Your task to perform on an android device: add a contact Image 0: 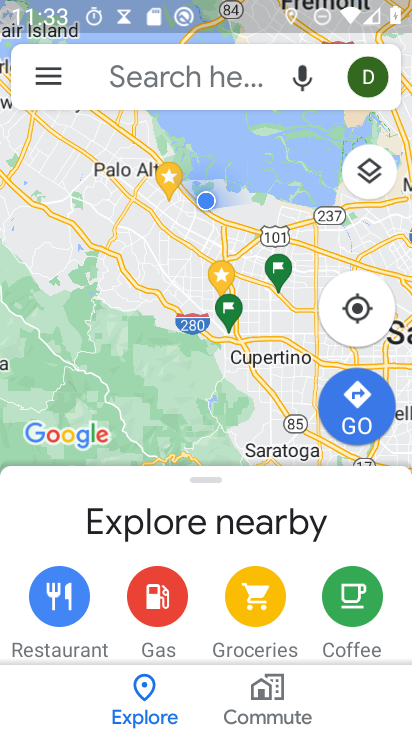
Step 0: press home button
Your task to perform on an android device: add a contact Image 1: 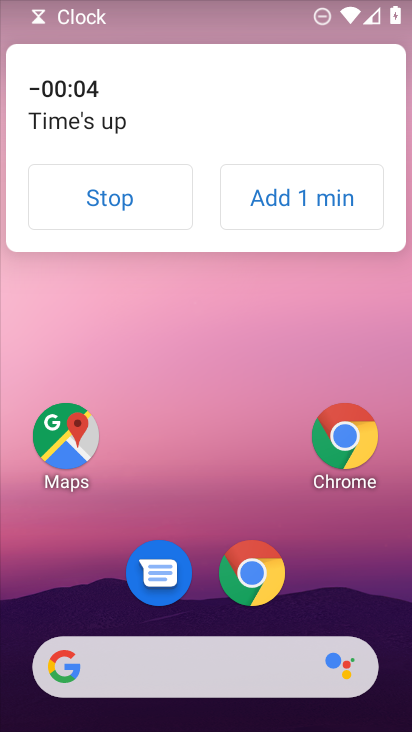
Step 1: click (89, 210)
Your task to perform on an android device: add a contact Image 2: 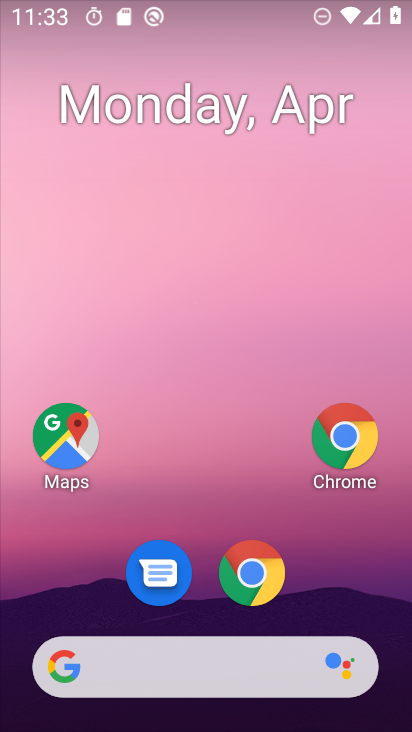
Step 2: drag from (349, 570) to (307, 45)
Your task to perform on an android device: add a contact Image 3: 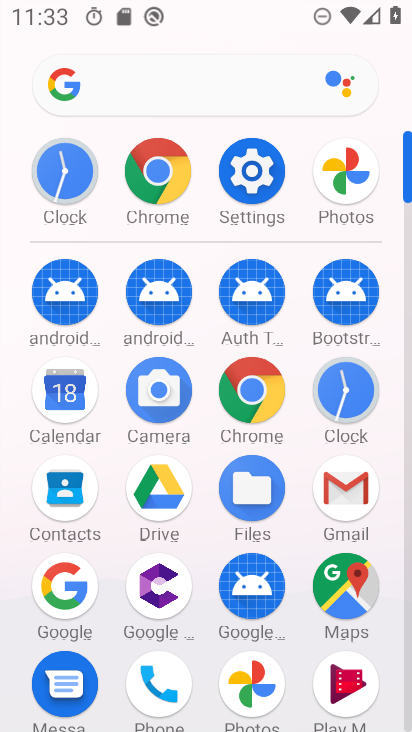
Step 3: click (56, 393)
Your task to perform on an android device: add a contact Image 4: 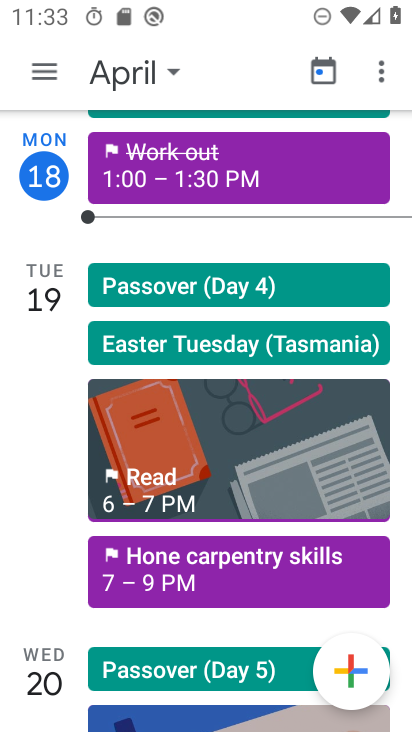
Step 4: click (348, 665)
Your task to perform on an android device: add a contact Image 5: 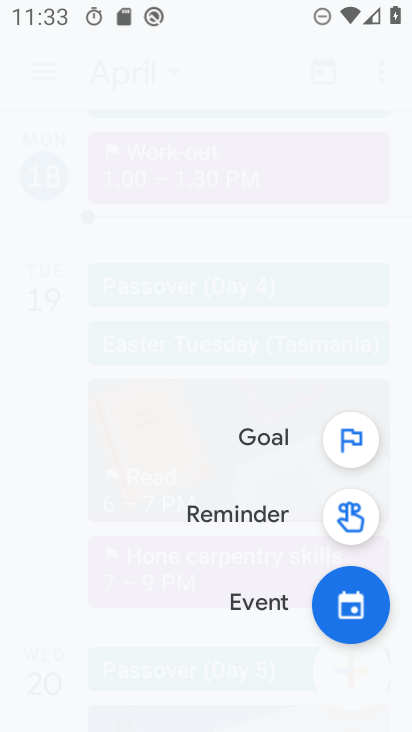
Step 5: click (52, 222)
Your task to perform on an android device: add a contact Image 6: 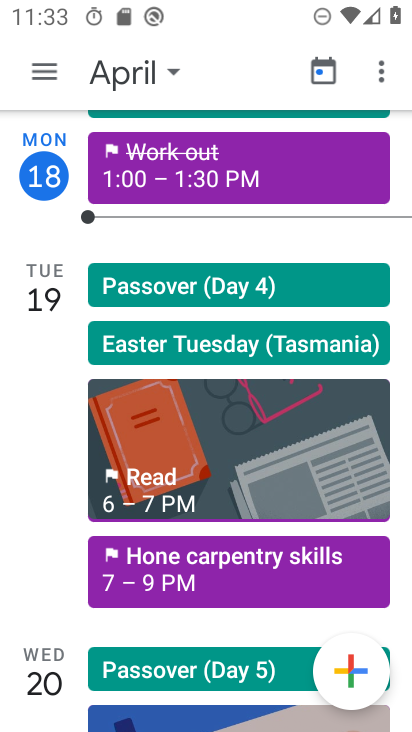
Step 6: press home button
Your task to perform on an android device: add a contact Image 7: 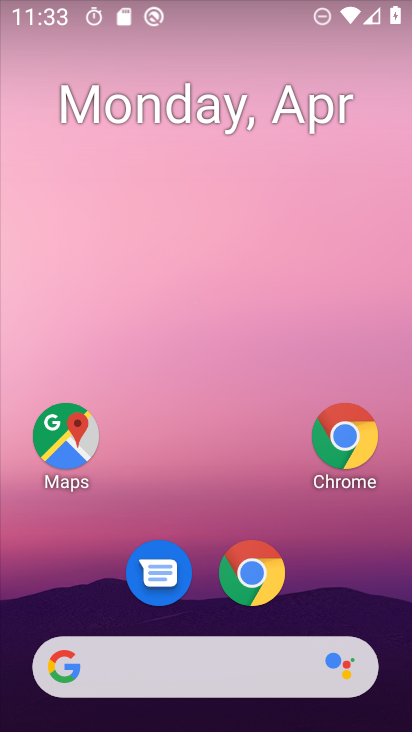
Step 7: drag from (405, 404) to (387, 12)
Your task to perform on an android device: add a contact Image 8: 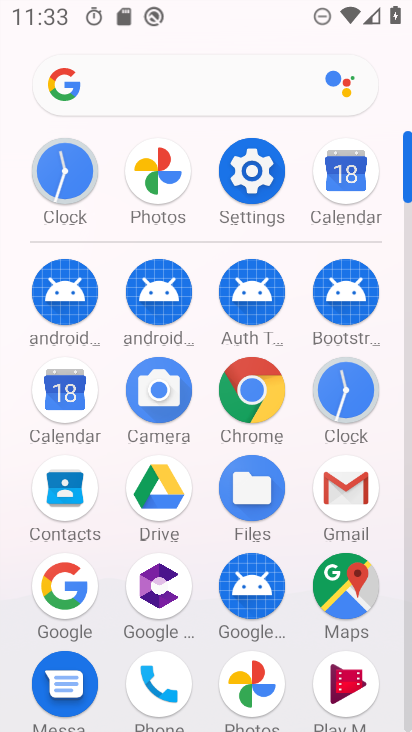
Step 8: click (51, 495)
Your task to perform on an android device: add a contact Image 9: 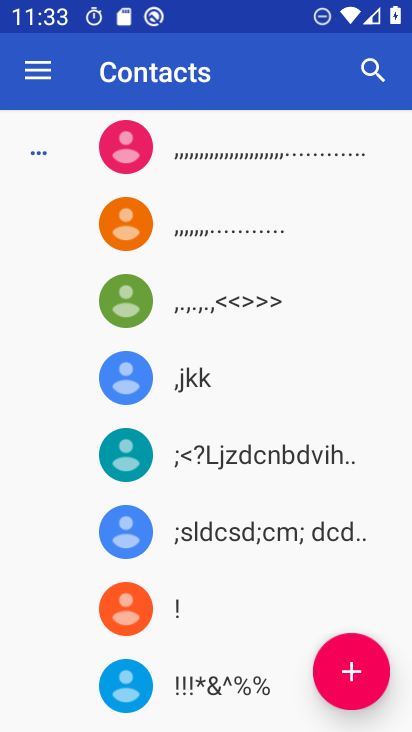
Step 9: click (345, 673)
Your task to perform on an android device: add a contact Image 10: 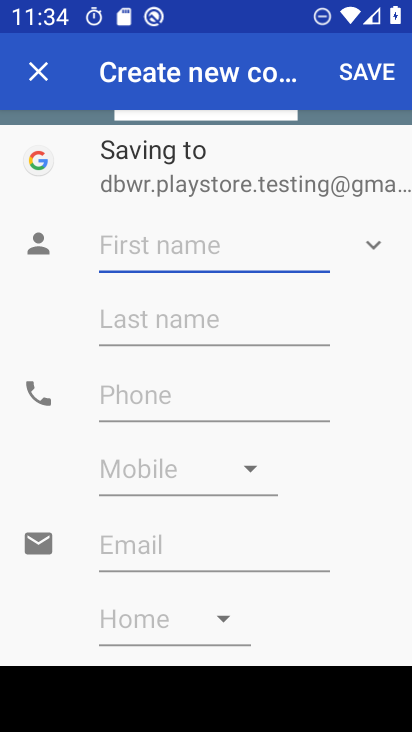
Step 10: type "renu"
Your task to perform on an android device: add a contact Image 11: 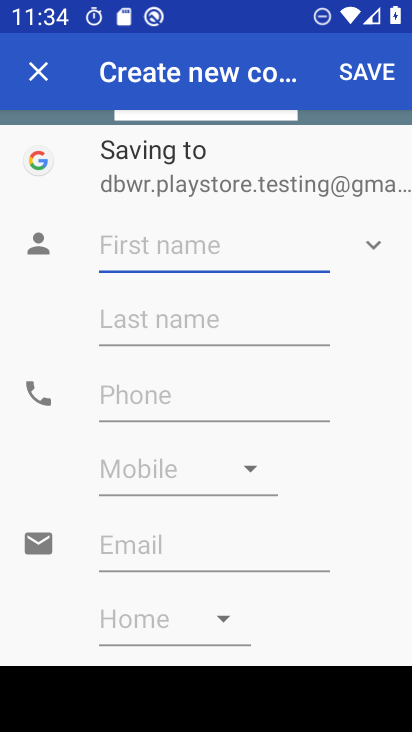
Step 11: click (136, 377)
Your task to perform on an android device: add a contact Image 12: 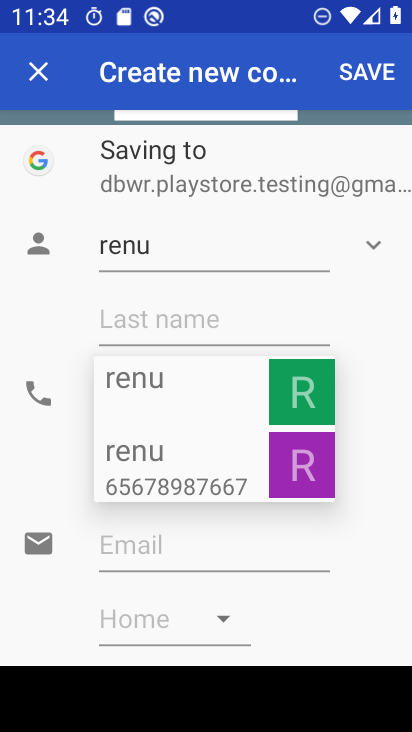
Step 12: type "9876543345678"
Your task to perform on an android device: add a contact Image 13: 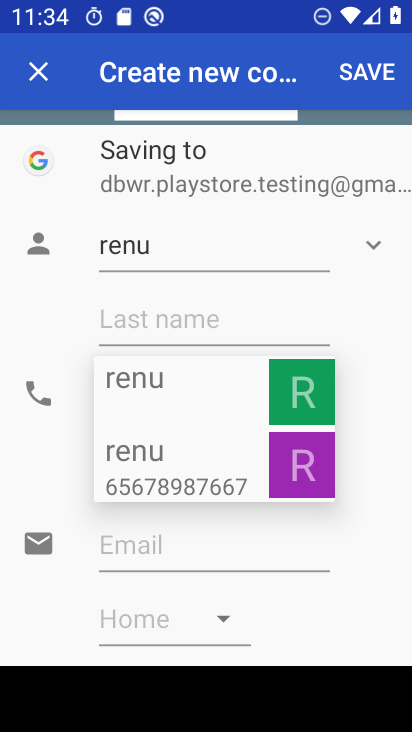
Step 13: click (392, 470)
Your task to perform on an android device: add a contact Image 14: 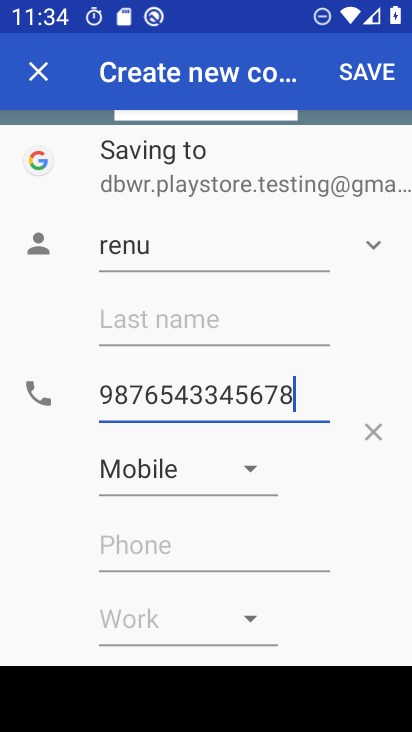
Step 14: click (352, 70)
Your task to perform on an android device: add a contact Image 15: 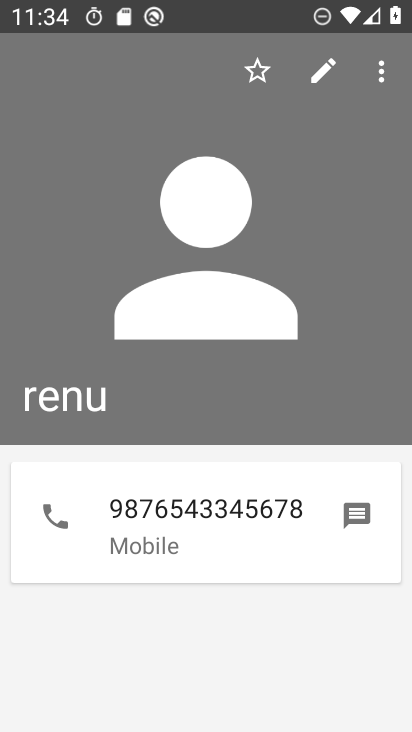
Step 15: task complete